Your task to perform on an android device: turn on improve location accuracy Image 0: 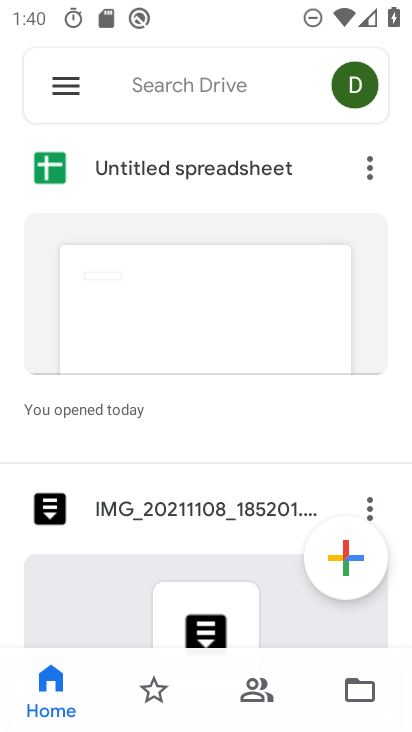
Step 0: press home button
Your task to perform on an android device: turn on improve location accuracy Image 1: 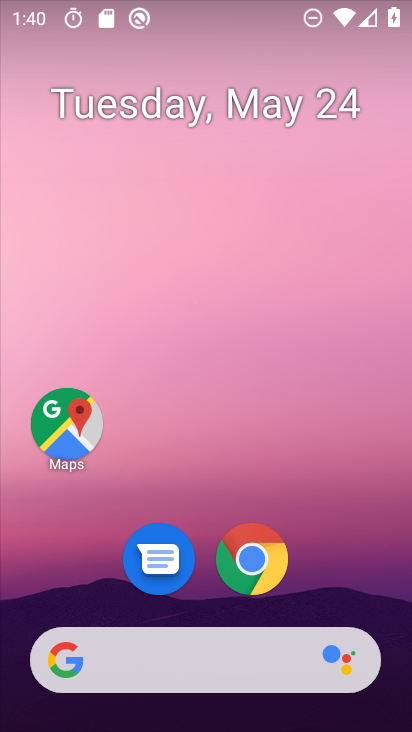
Step 1: drag from (409, 682) to (374, 200)
Your task to perform on an android device: turn on improve location accuracy Image 2: 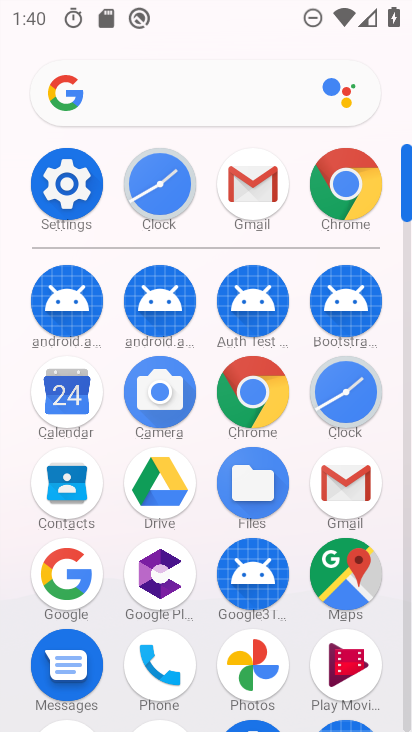
Step 2: click (74, 198)
Your task to perform on an android device: turn on improve location accuracy Image 3: 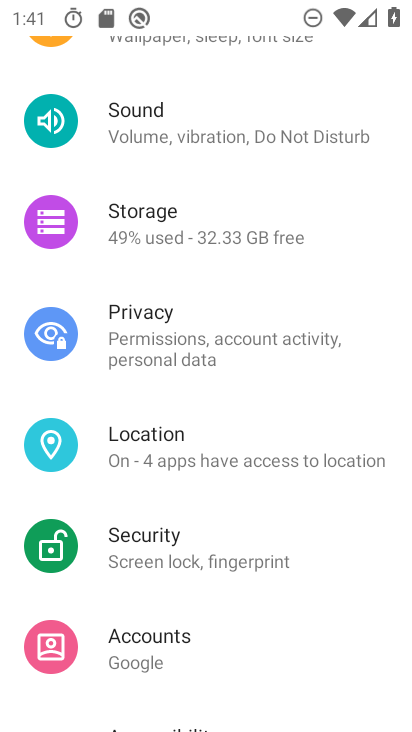
Step 3: click (147, 442)
Your task to perform on an android device: turn on improve location accuracy Image 4: 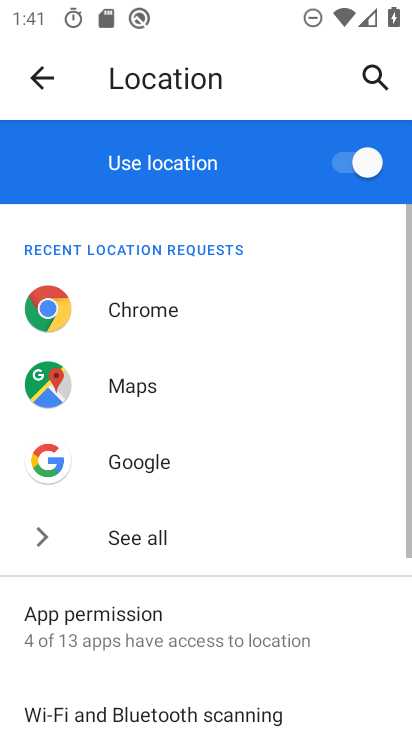
Step 4: drag from (212, 673) to (219, 440)
Your task to perform on an android device: turn on improve location accuracy Image 5: 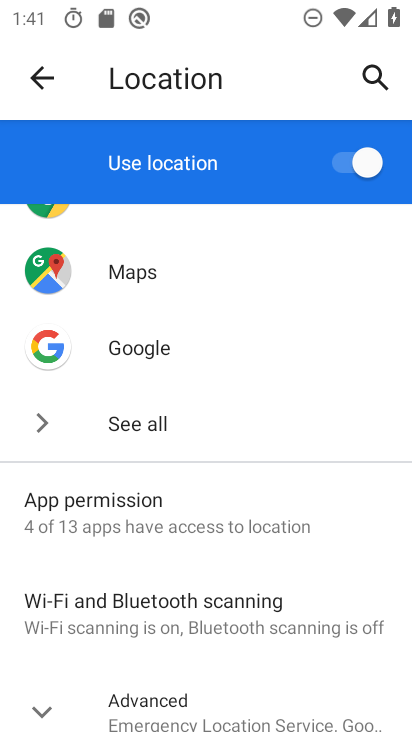
Step 5: drag from (248, 696) to (265, 446)
Your task to perform on an android device: turn on improve location accuracy Image 6: 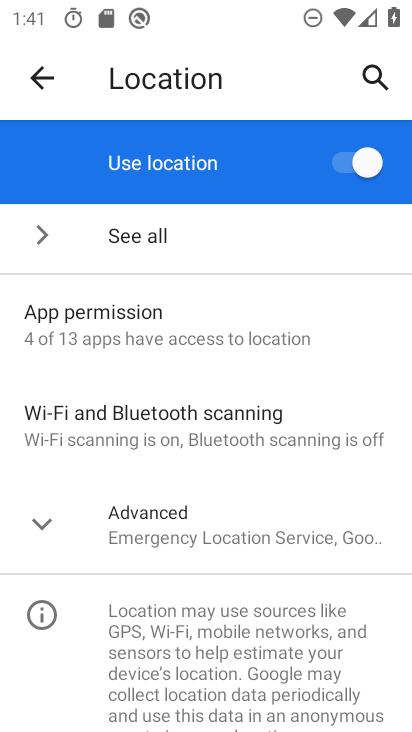
Step 6: drag from (198, 689) to (218, 419)
Your task to perform on an android device: turn on improve location accuracy Image 7: 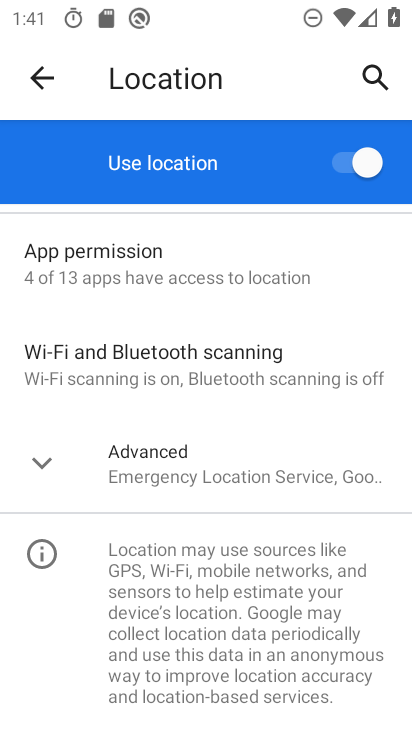
Step 7: click (50, 454)
Your task to perform on an android device: turn on improve location accuracy Image 8: 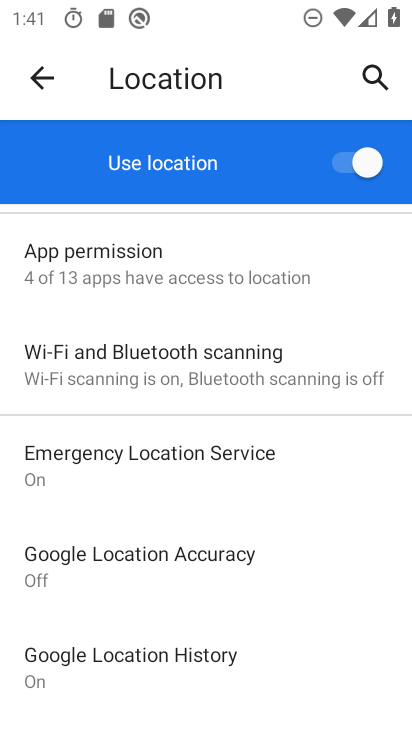
Step 8: click (77, 556)
Your task to perform on an android device: turn on improve location accuracy Image 9: 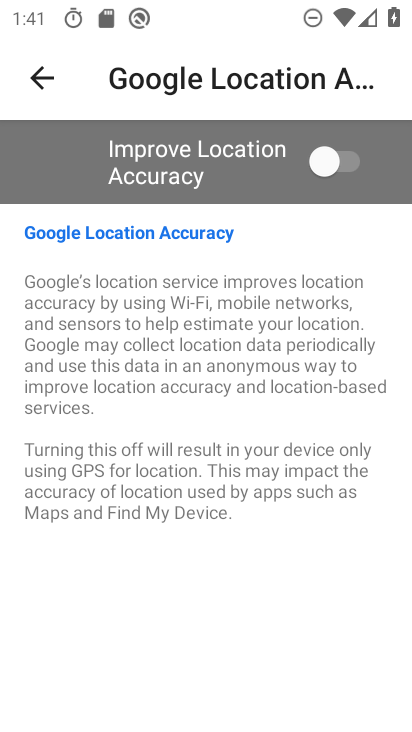
Step 9: click (348, 147)
Your task to perform on an android device: turn on improve location accuracy Image 10: 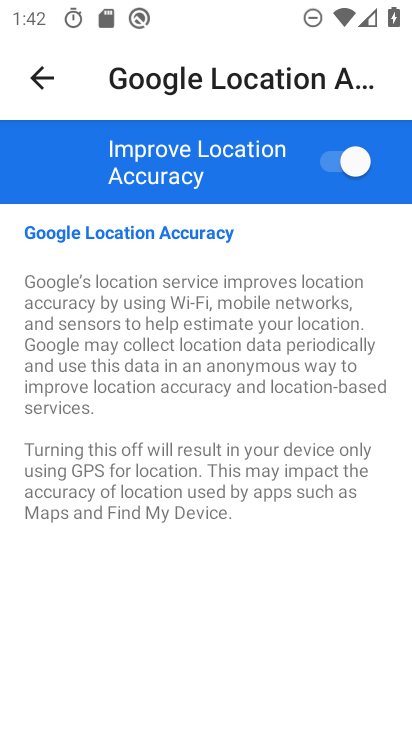
Step 10: task complete